Your task to perform on an android device: delete location history Image 0: 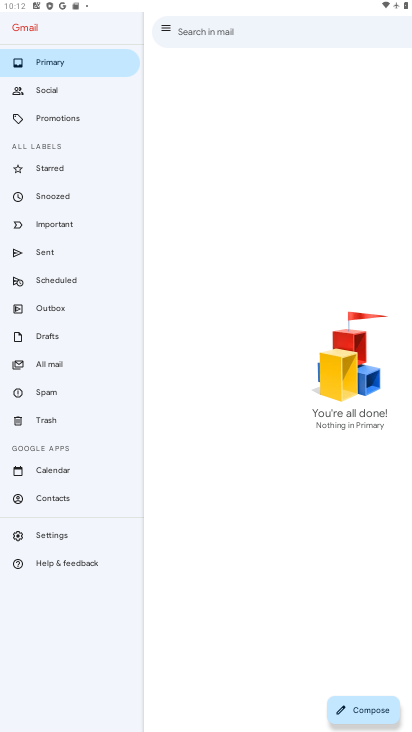
Step 0: task complete